Your task to perform on an android device: turn off sleep mode Image 0: 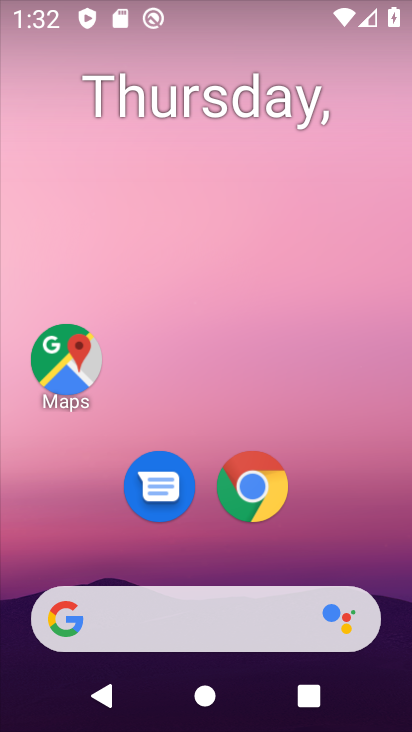
Step 0: drag from (371, 549) to (338, 78)
Your task to perform on an android device: turn off sleep mode Image 1: 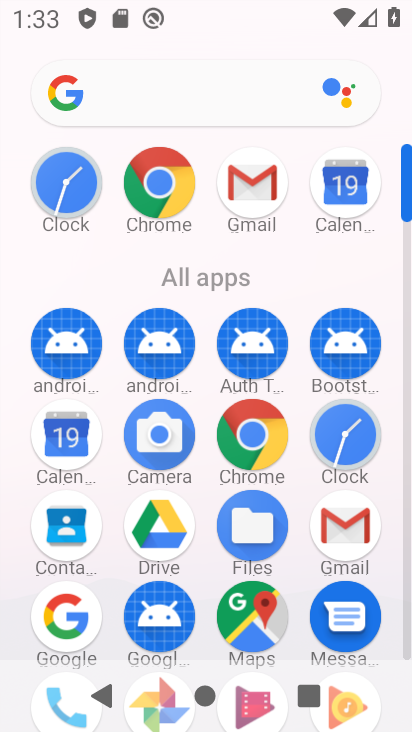
Step 1: click (409, 643)
Your task to perform on an android device: turn off sleep mode Image 2: 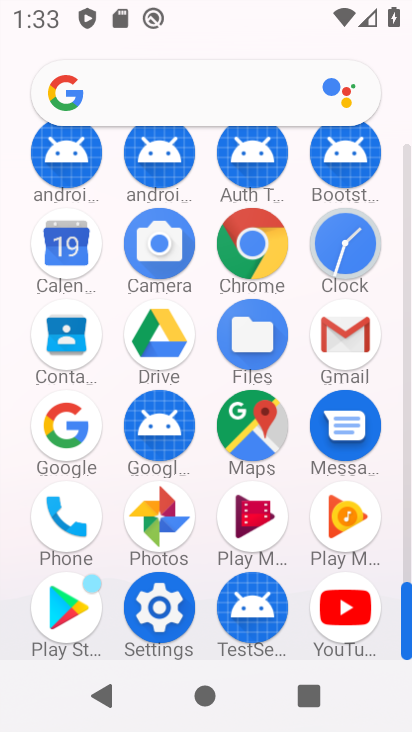
Step 2: click (159, 606)
Your task to perform on an android device: turn off sleep mode Image 3: 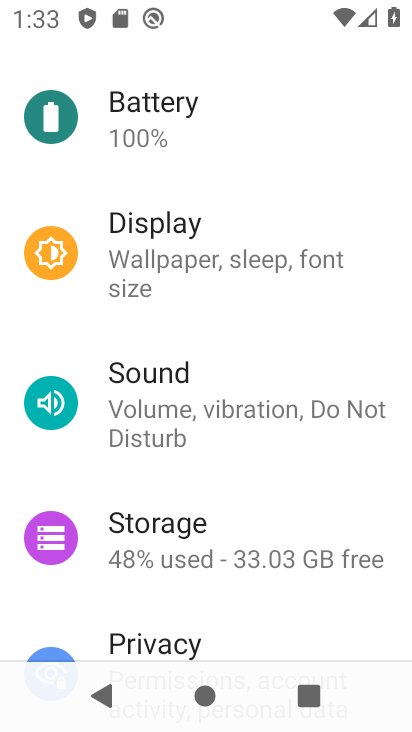
Step 3: click (211, 260)
Your task to perform on an android device: turn off sleep mode Image 4: 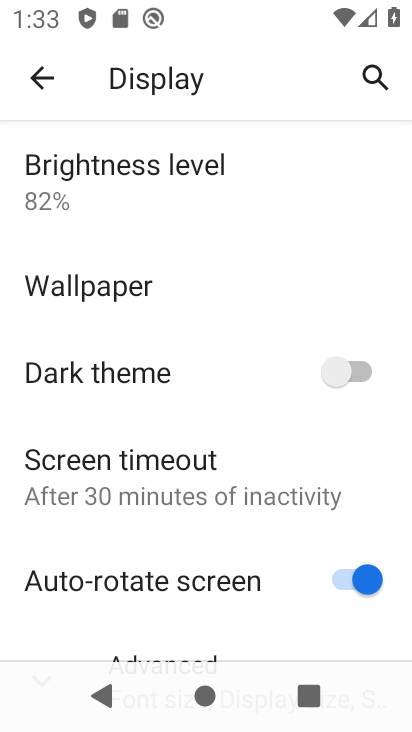
Step 4: task complete